Your task to perform on an android device: Open Chrome and go to the settings page Image 0: 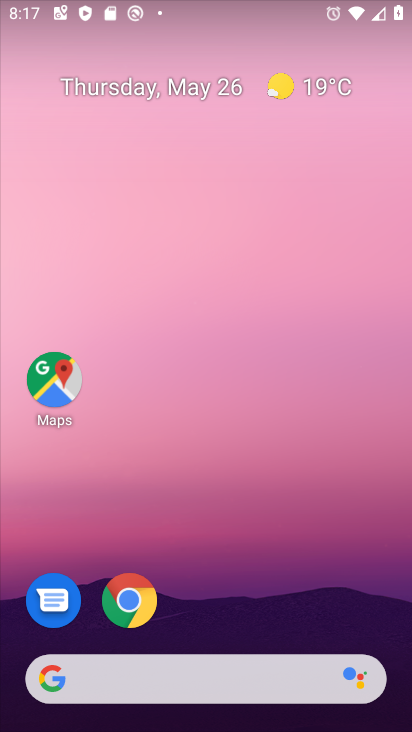
Step 0: press home button
Your task to perform on an android device: Open Chrome and go to the settings page Image 1: 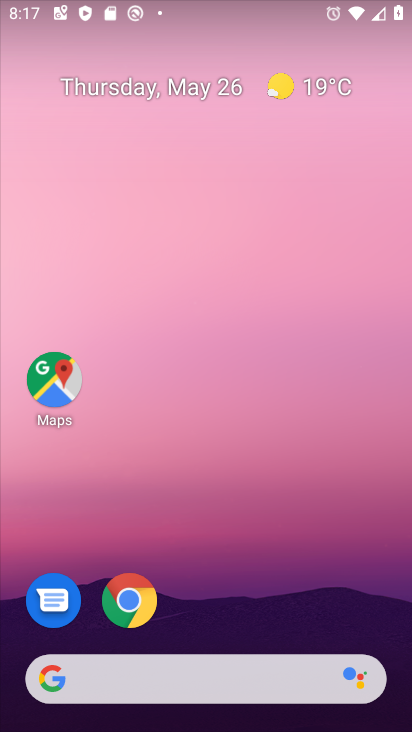
Step 1: click (127, 598)
Your task to perform on an android device: Open Chrome and go to the settings page Image 2: 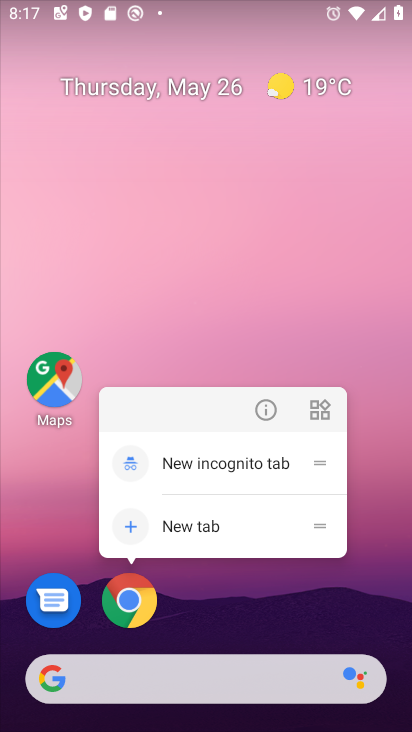
Step 2: click (208, 633)
Your task to perform on an android device: Open Chrome and go to the settings page Image 3: 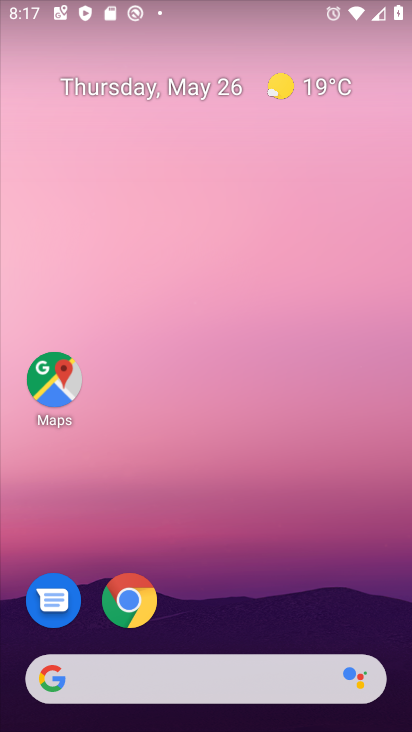
Step 3: drag from (226, 431) to (214, 152)
Your task to perform on an android device: Open Chrome and go to the settings page Image 4: 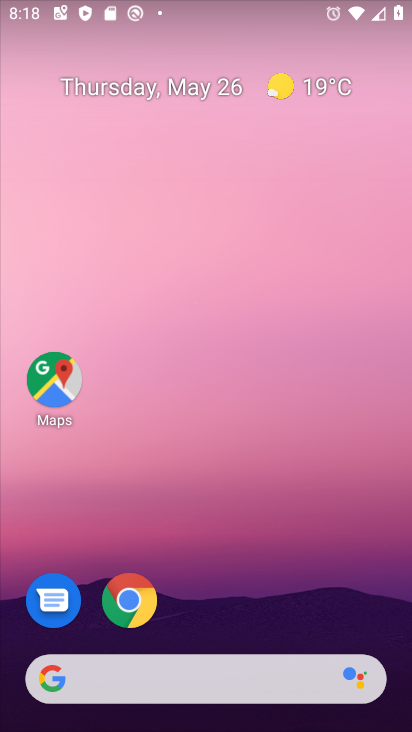
Step 4: drag from (232, 629) to (239, 191)
Your task to perform on an android device: Open Chrome and go to the settings page Image 5: 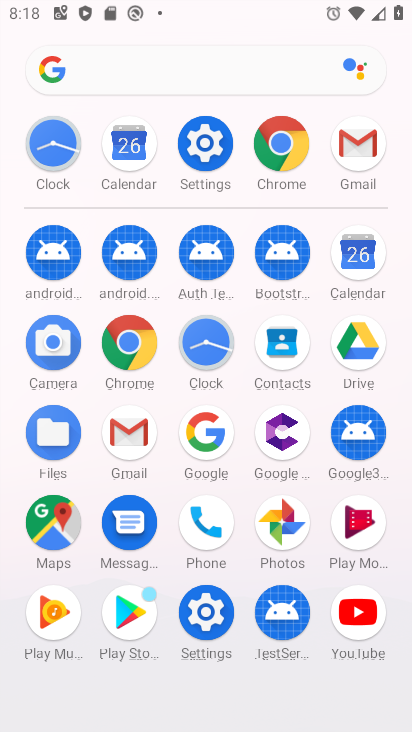
Step 5: click (277, 157)
Your task to perform on an android device: Open Chrome and go to the settings page Image 6: 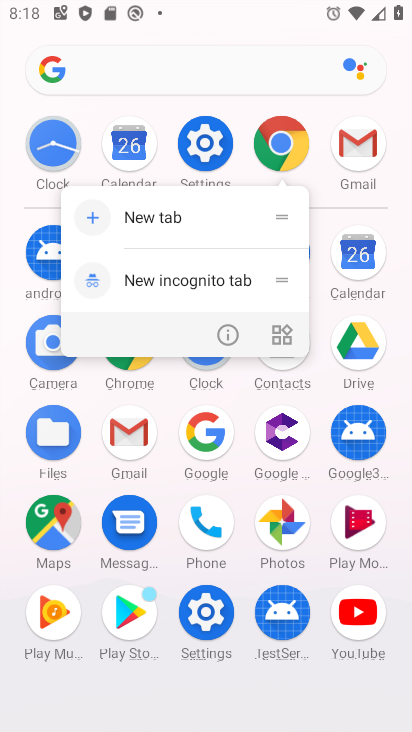
Step 6: click (277, 136)
Your task to perform on an android device: Open Chrome and go to the settings page Image 7: 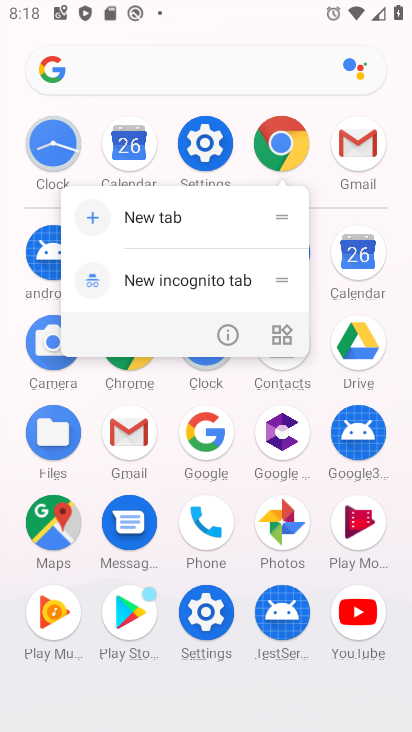
Step 7: click (277, 135)
Your task to perform on an android device: Open Chrome and go to the settings page Image 8: 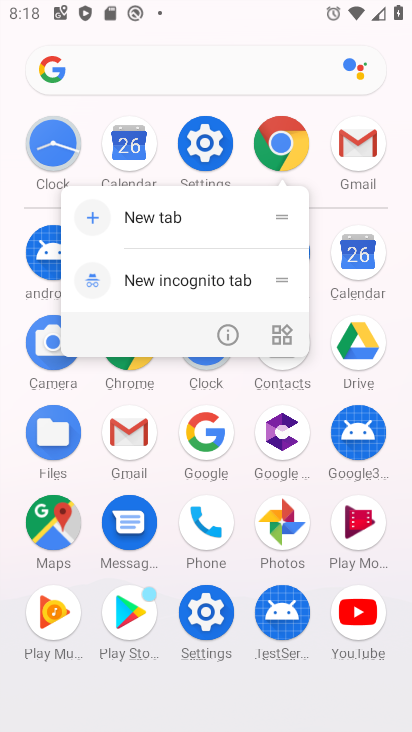
Step 8: click (284, 158)
Your task to perform on an android device: Open Chrome and go to the settings page Image 9: 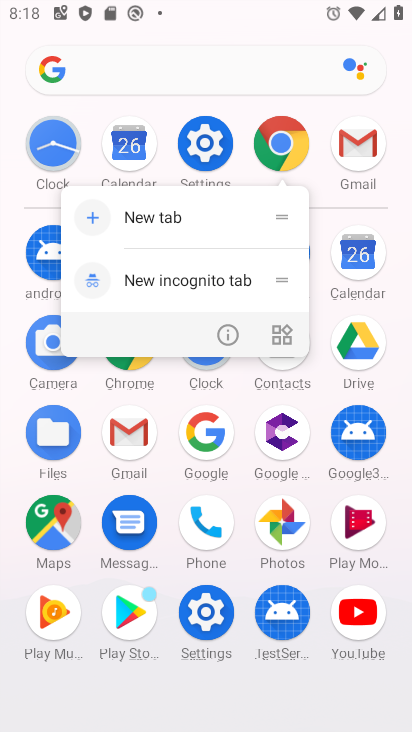
Step 9: click (282, 143)
Your task to perform on an android device: Open Chrome and go to the settings page Image 10: 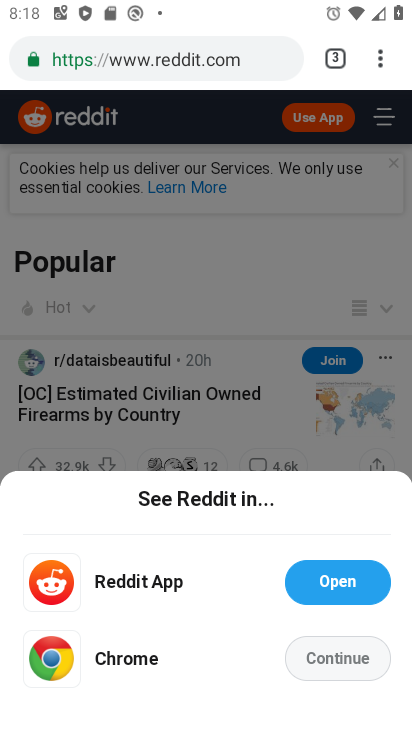
Step 10: task complete